Your task to perform on an android device: change keyboard looks Image 0: 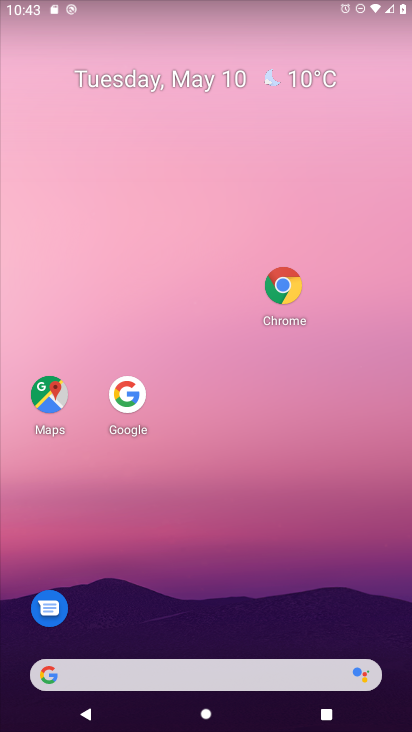
Step 0: drag from (177, 674) to (290, 254)
Your task to perform on an android device: change keyboard looks Image 1: 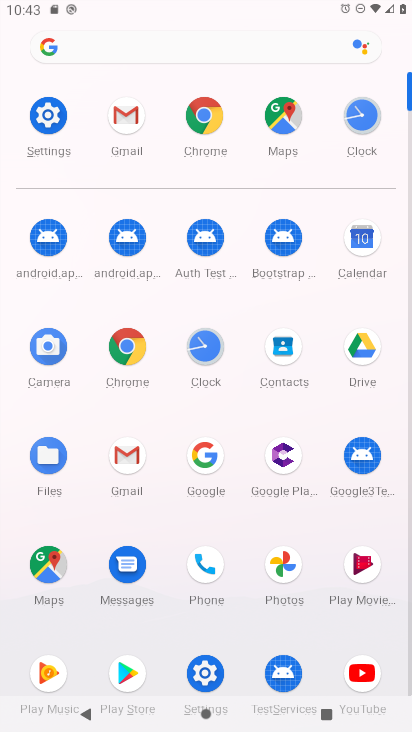
Step 1: click (51, 122)
Your task to perform on an android device: change keyboard looks Image 2: 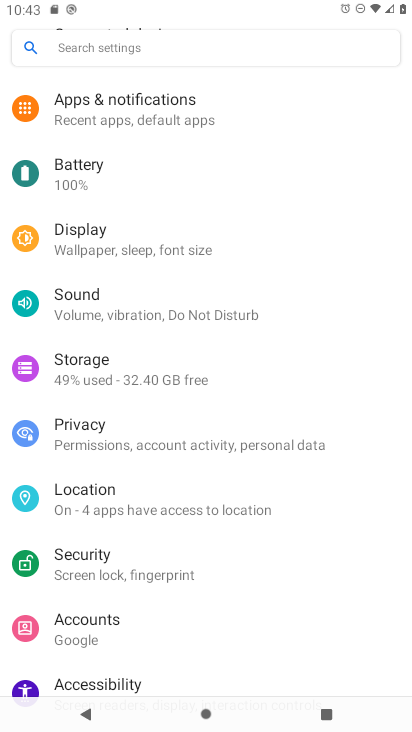
Step 2: drag from (160, 615) to (308, 333)
Your task to perform on an android device: change keyboard looks Image 3: 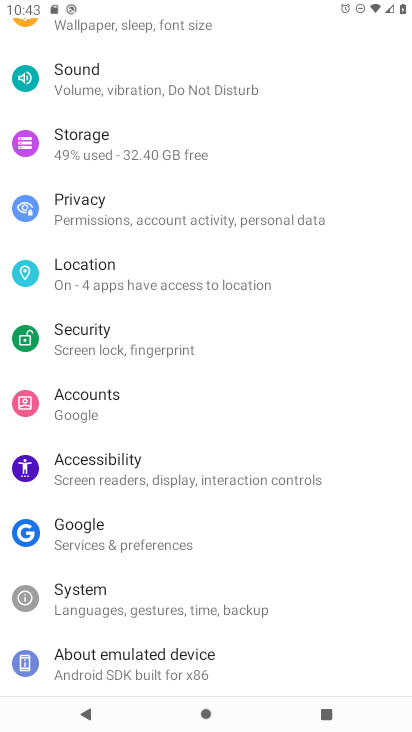
Step 3: click (136, 607)
Your task to perform on an android device: change keyboard looks Image 4: 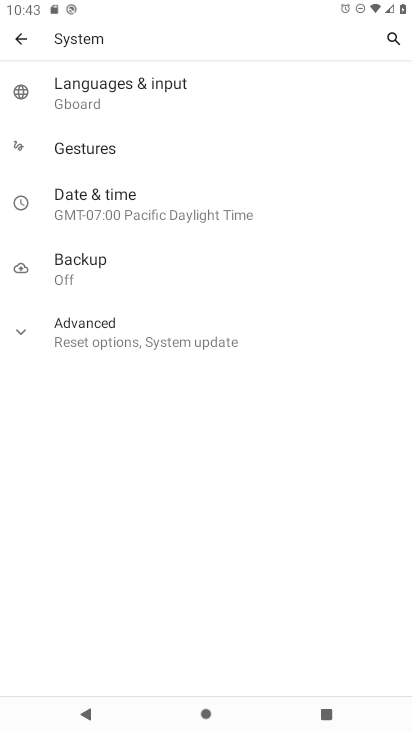
Step 4: click (127, 88)
Your task to perform on an android device: change keyboard looks Image 5: 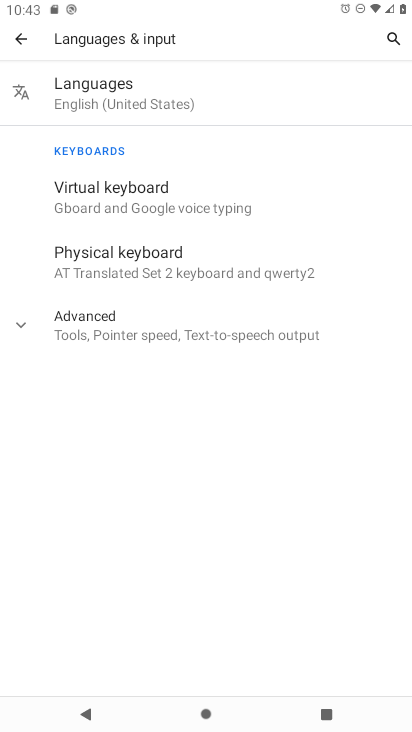
Step 5: click (133, 192)
Your task to perform on an android device: change keyboard looks Image 6: 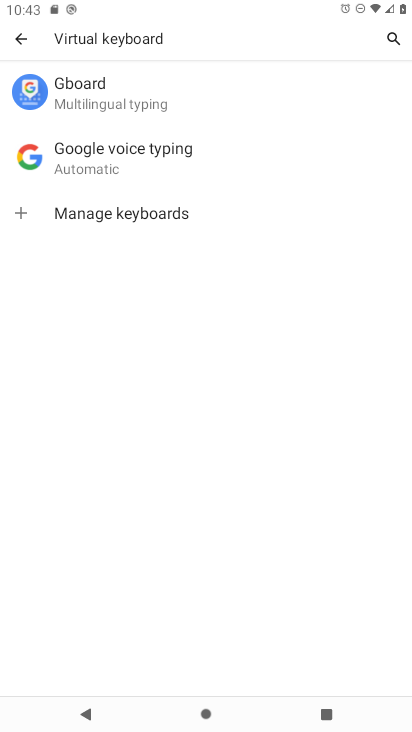
Step 6: click (104, 100)
Your task to perform on an android device: change keyboard looks Image 7: 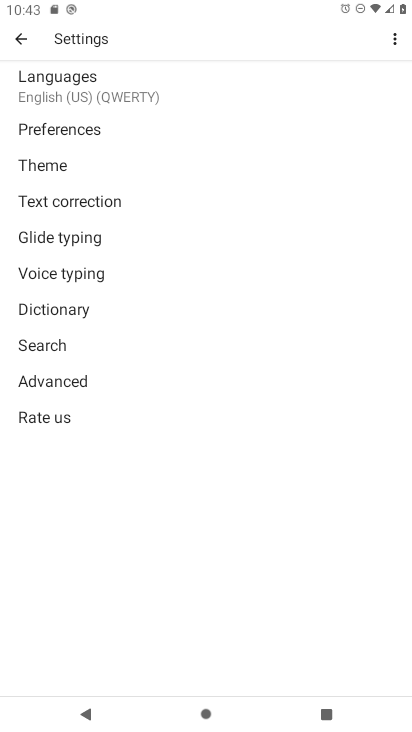
Step 7: click (54, 167)
Your task to perform on an android device: change keyboard looks Image 8: 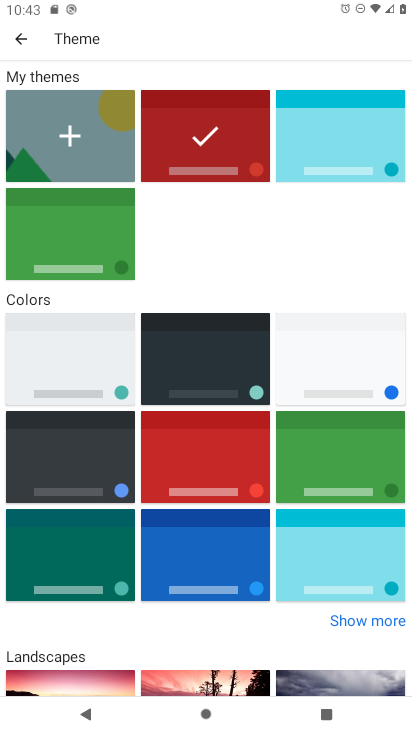
Step 8: click (314, 466)
Your task to perform on an android device: change keyboard looks Image 9: 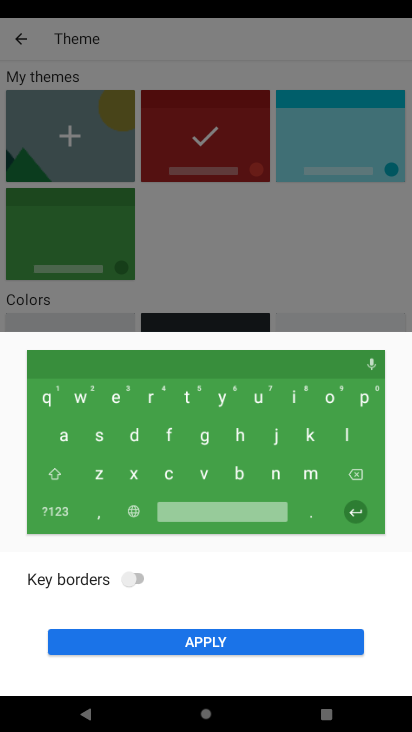
Step 9: click (187, 640)
Your task to perform on an android device: change keyboard looks Image 10: 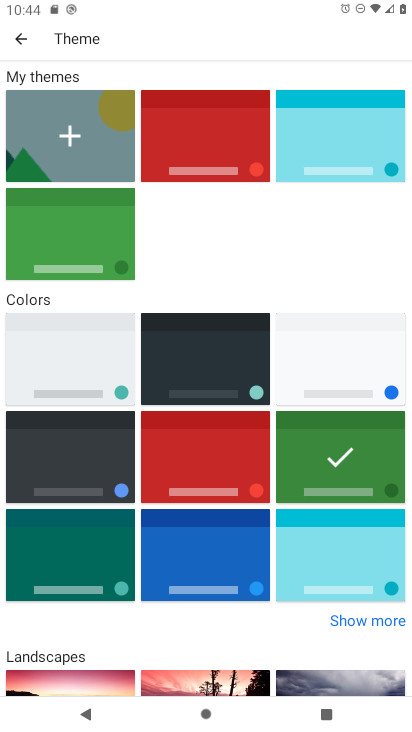
Step 10: task complete